Your task to perform on an android device: turn on airplane mode Image 0: 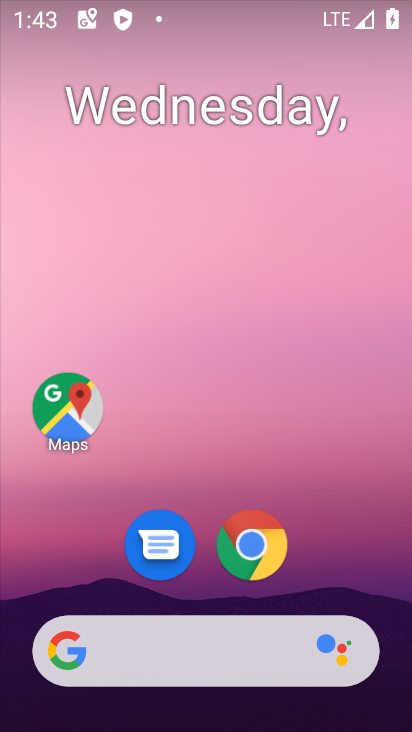
Step 0: drag from (329, 510) to (305, 135)
Your task to perform on an android device: turn on airplane mode Image 1: 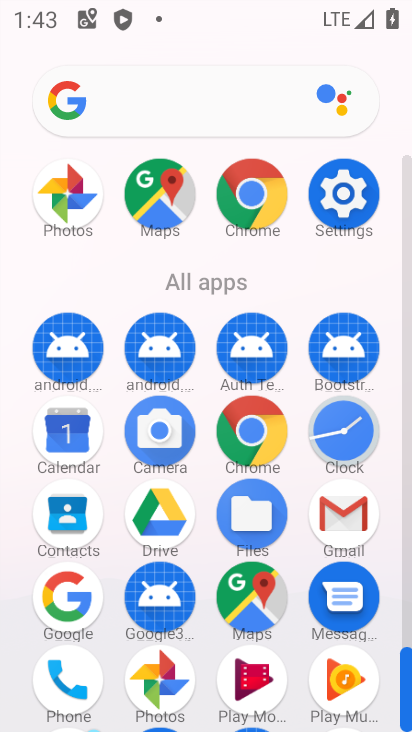
Step 1: click (338, 203)
Your task to perform on an android device: turn on airplane mode Image 2: 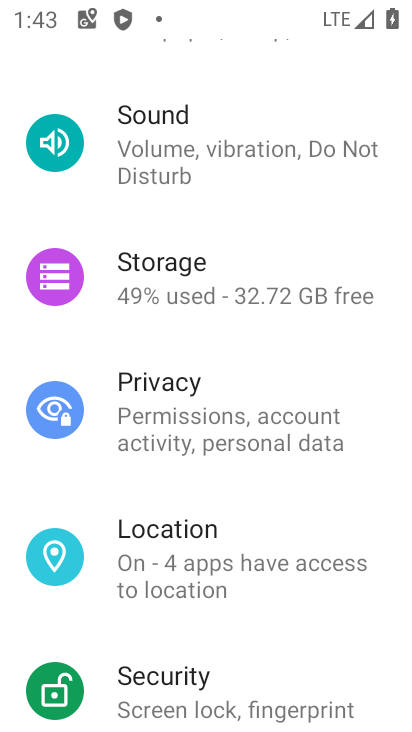
Step 2: drag from (228, 173) to (276, 555)
Your task to perform on an android device: turn on airplane mode Image 3: 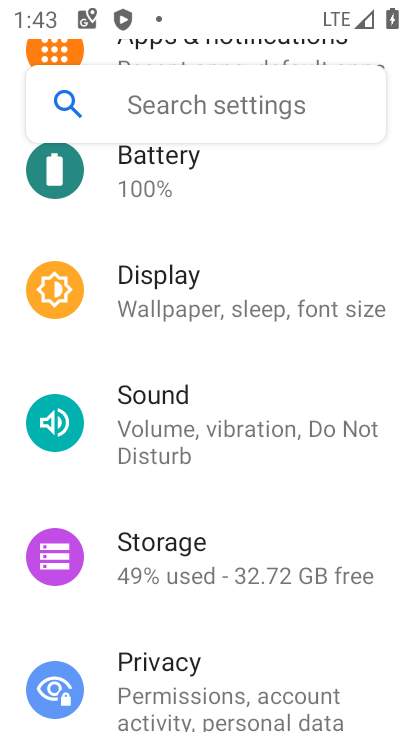
Step 3: drag from (226, 190) to (272, 551)
Your task to perform on an android device: turn on airplane mode Image 4: 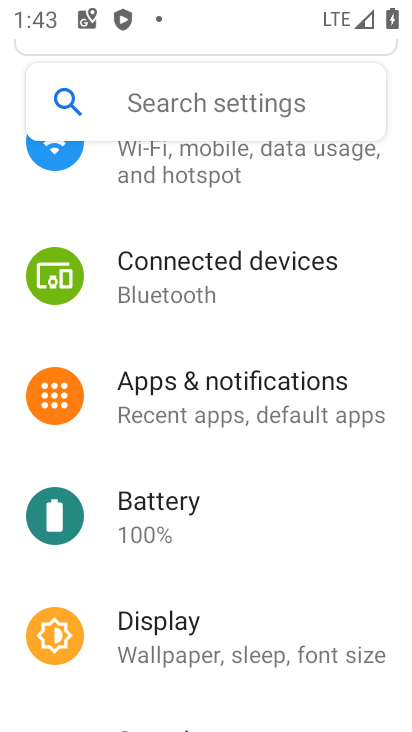
Step 4: click (190, 172)
Your task to perform on an android device: turn on airplane mode Image 5: 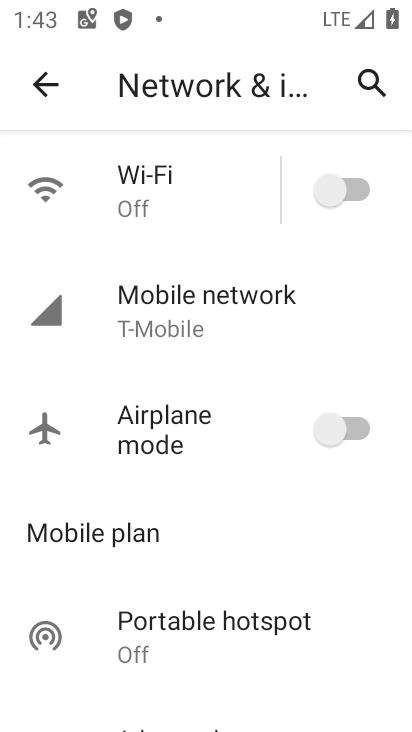
Step 5: click (341, 423)
Your task to perform on an android device: turn on airplane mode Image 6: 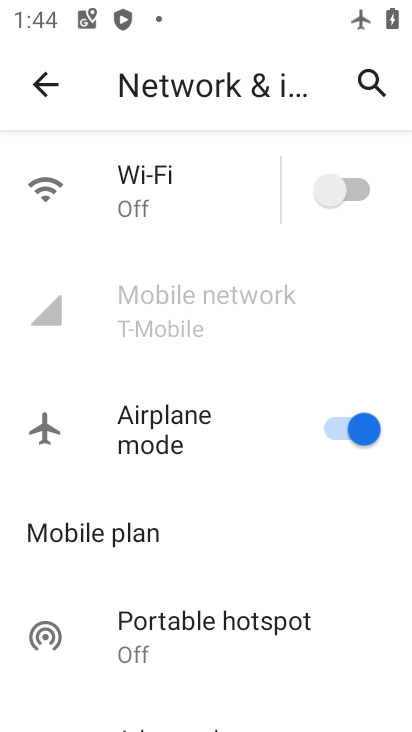
Step 6: task complete